Your task to perform on an android device: stop showing notifications on the lock screen Image 0: 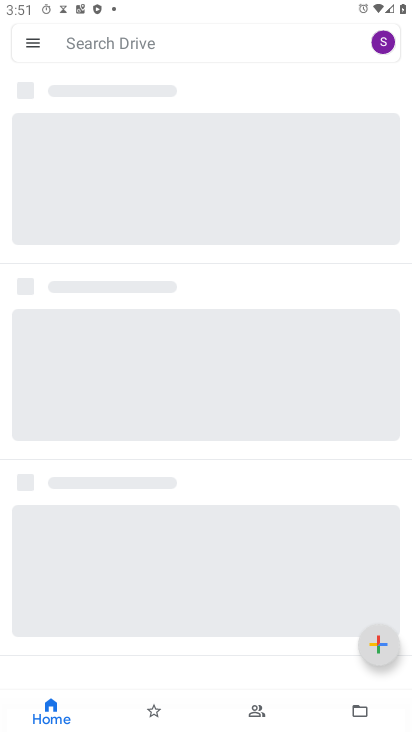
Step 0: press home button
Your task to perform on an android device: stop showing notifications on the lock screen Image 1: 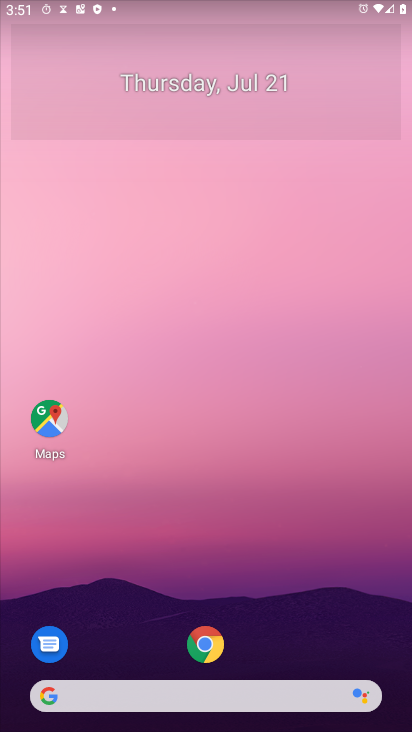
Step 1: press home button
Your task to perform on an android device: stop showing notifications on the lock screen Image 2: 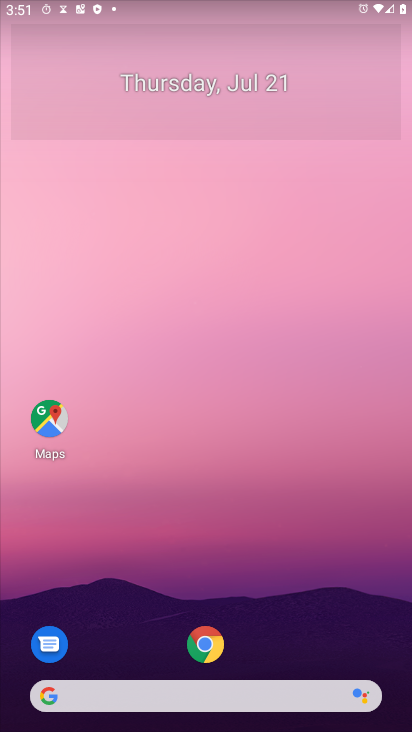
Step 2: drag from (298, 613) to (270, 111)
Your task to perform on an android device: stop showing notifications on the lock screen Image 3: 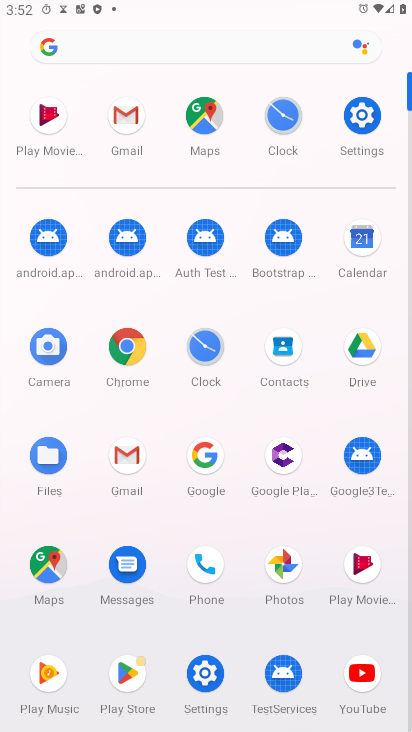
Step 3: click (368, 115)
Your task to perform on an android device: stop showing notifications on the lock screen Image 4: 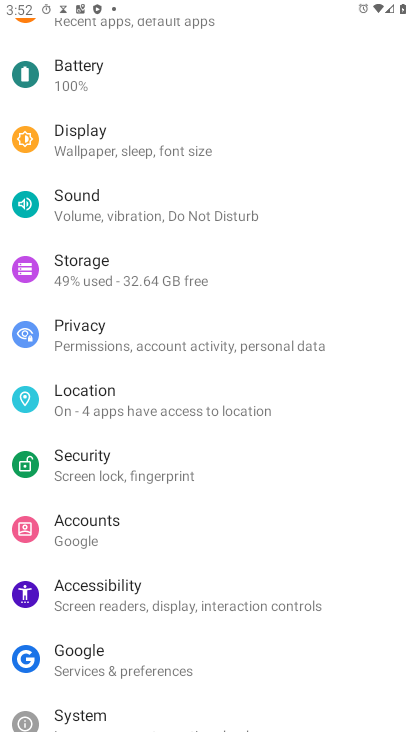
Step 4: drag from (177, 98) to (107, 296)
Your task to perform on an android device: stop showing notifications on the lock screen Image 5: 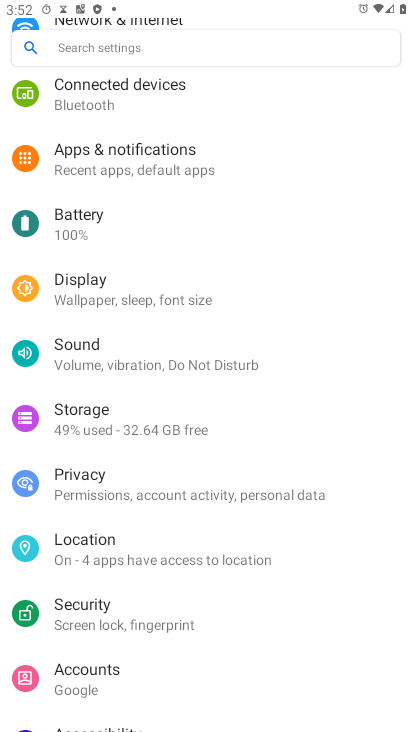
Step 5: click (123, 157)
Your task to perform on an android device: stop showing notifications on the lock screen Image 6: 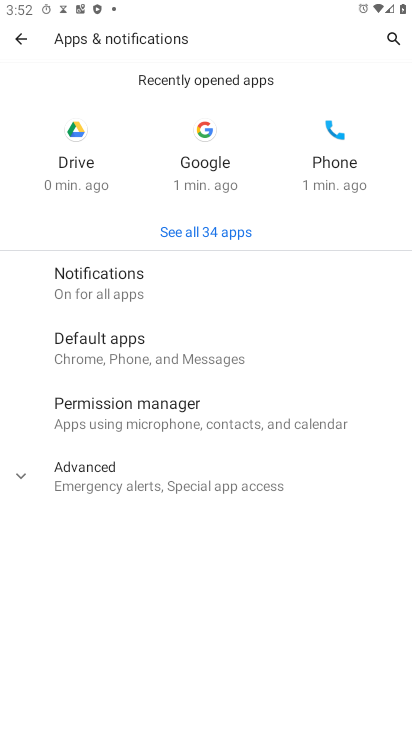
Step 6: click (106, 273)
Your task to perform on an android device: stop showing notifications on the lock screen Image 7: 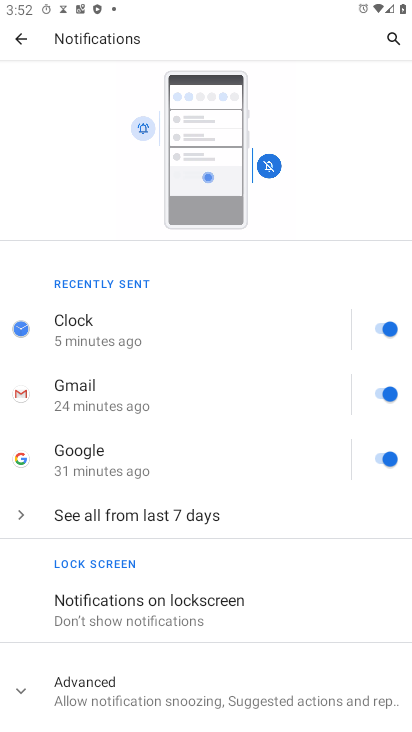
Step 7: click (137, 603)
Your task to perform on an android device: stop showing notifications on the lock screen Image 8: 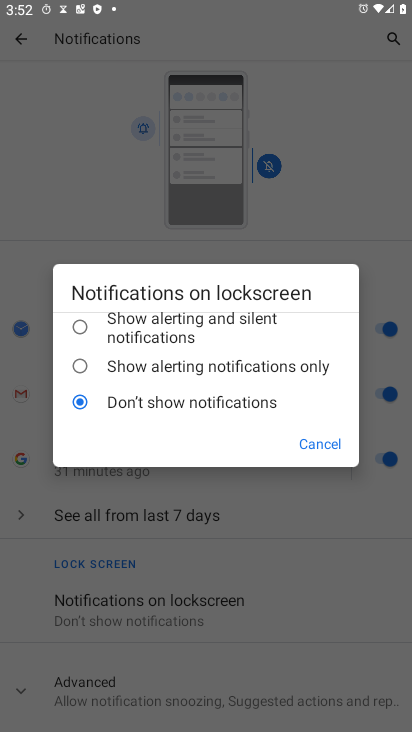
Step 8: task complete